Your task to perform on an android device: Show me the alarms in the clock app Image 0: 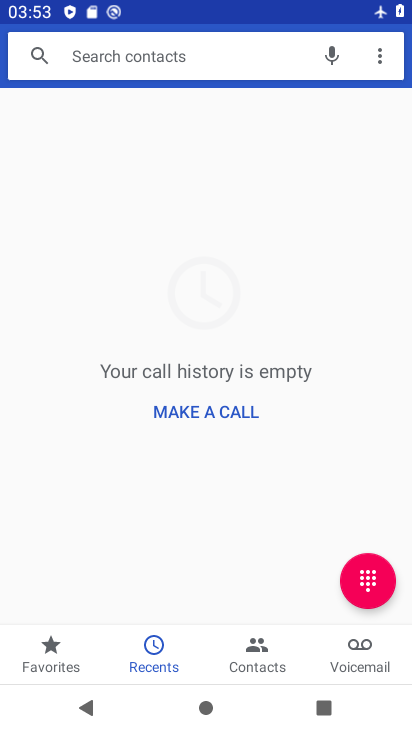
Step 0: press home button
Your task to perform on an android device: Show me the alarms in the clock app Image 1: 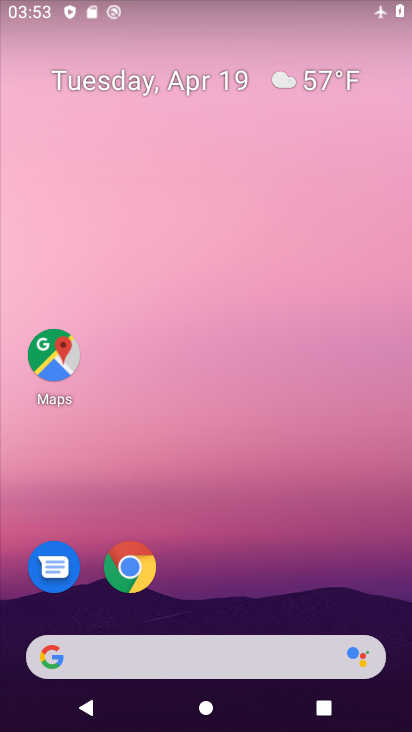
Step 1: drag from (348, 591) to (374, 177)
Your task to perform on an android device: Show me the alarms in the clock app Image 2: 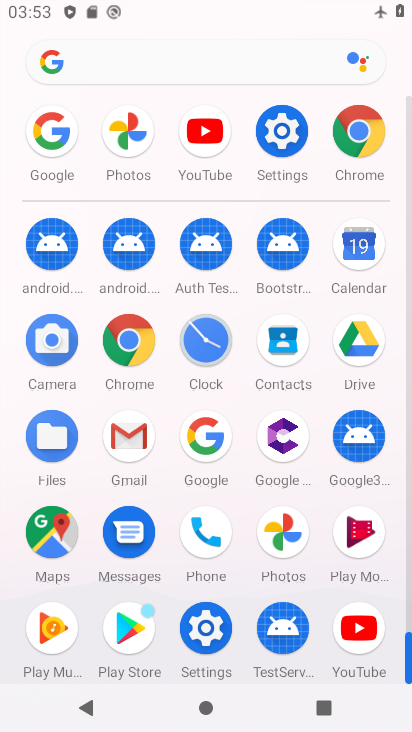
Step 2: click (206, 338)
Your task to perform on an android device: Show me the alarms in the clock app Image 3: 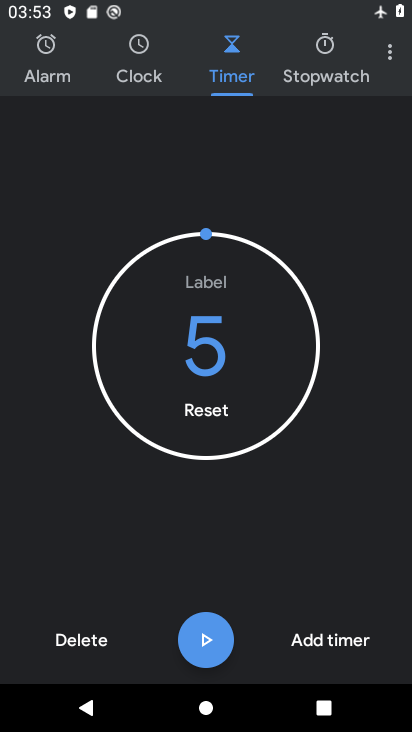
Step 3: click (46, 60)
Your task to perform on an android device: Show me the alarms in the clock app Image 4: 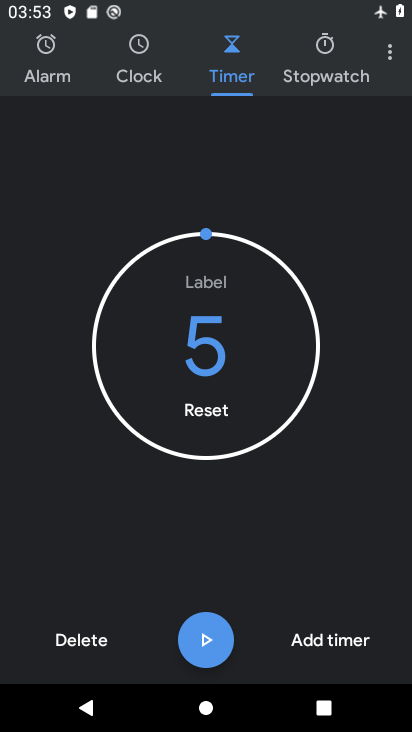
Step 4: click (46, 60)
Your task to perform on an android device: Show me the alarms in the clock app Image 5: 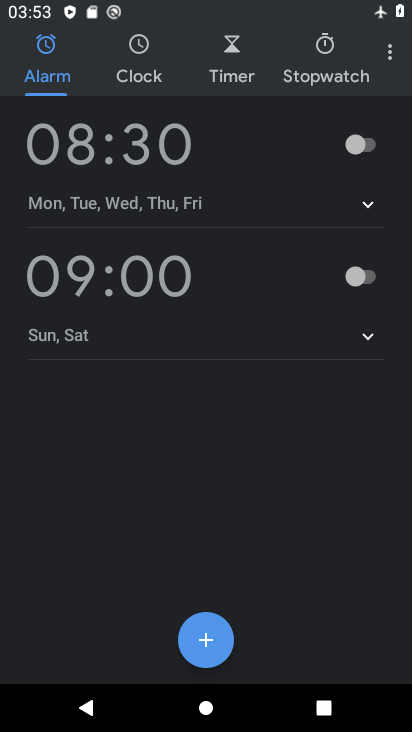
Step 5: task complete